Your task to perform on an android device: turn pop-ups on in chrome Image 0: 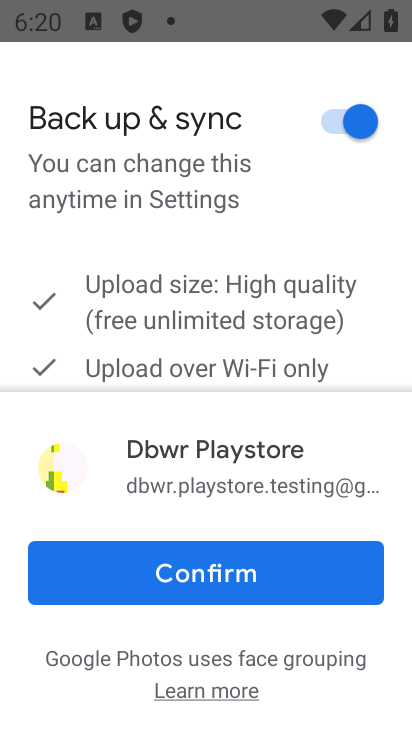
Step 0: press home button
Your task to perform on an android device: turn pop-ups on in chrome Image 1: 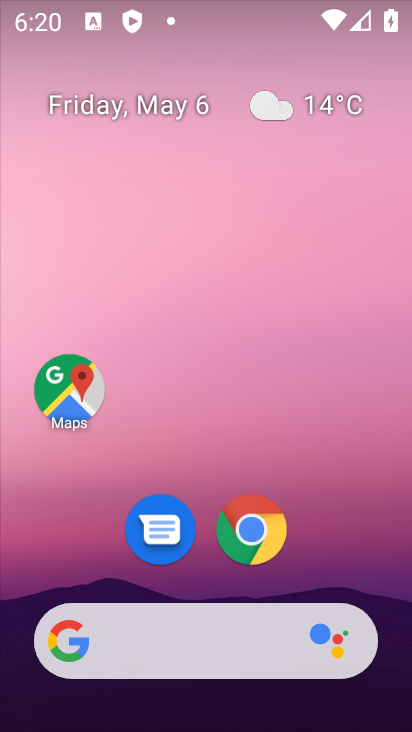
Step 1: click (251, 542)
Your task to perform on an android device: turn pop-ups on in chrome Image 2: 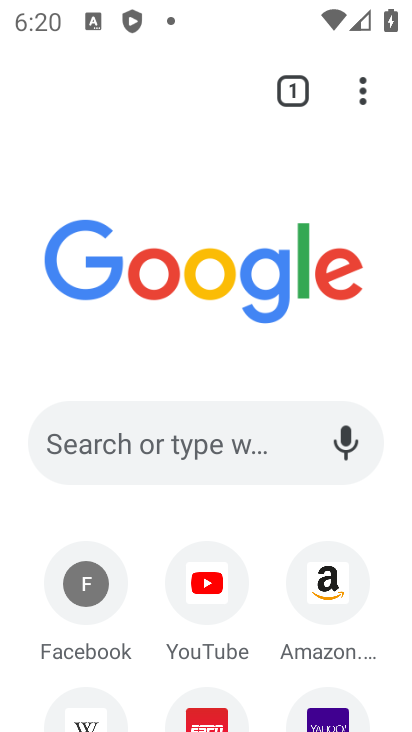
Step 2: click (364, 91)
Your task to perform on an android device: turn pop-ups on in chrome Image 3: 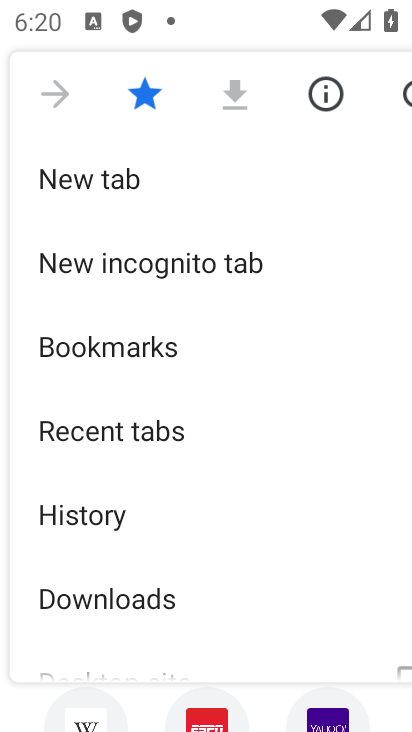
Step 3: drag from (208, 569) to (196, 84)
Your task to perform on an android device: turn pop-ups on in chrome Image 4: 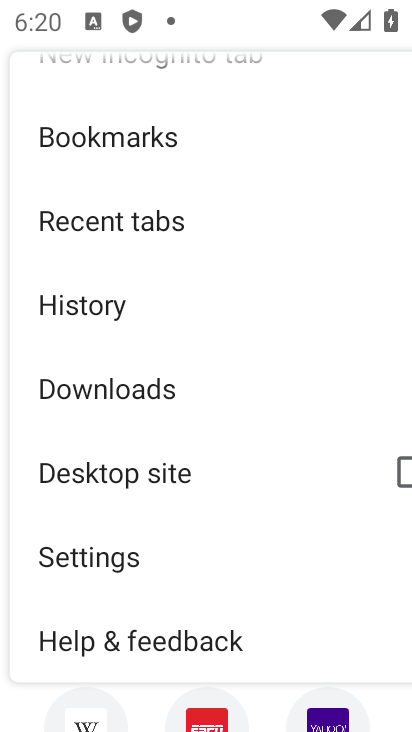
Step 4: click (117, 559)
Your task to perform on an android device: turn pop-ups on in chrome Image 5: 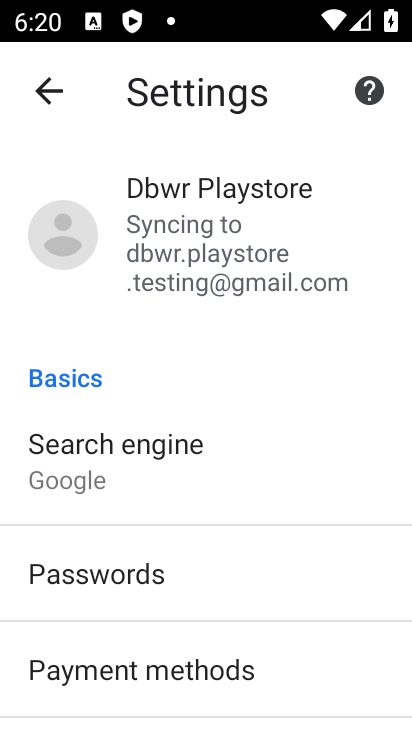
Step 5: drag from (222, 612) to (215, 128)
Your task to perform on an android device: turn pop-ups on in chrome Image 6: 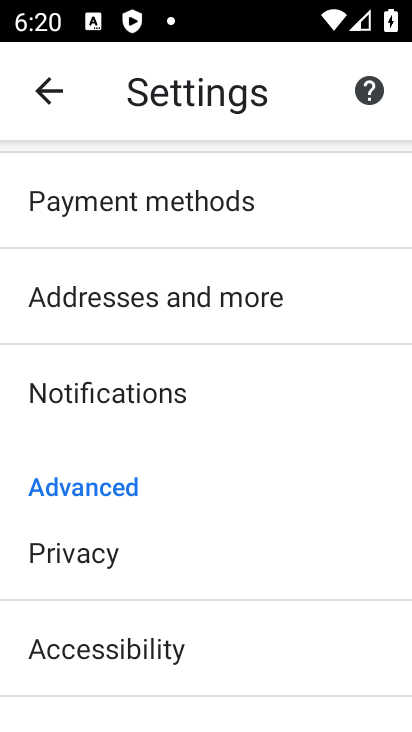
Step 6: drag from (195, 630) to (213, 271)
Your task to perform on an android device: turn pop-ups on in chrome Image 7: 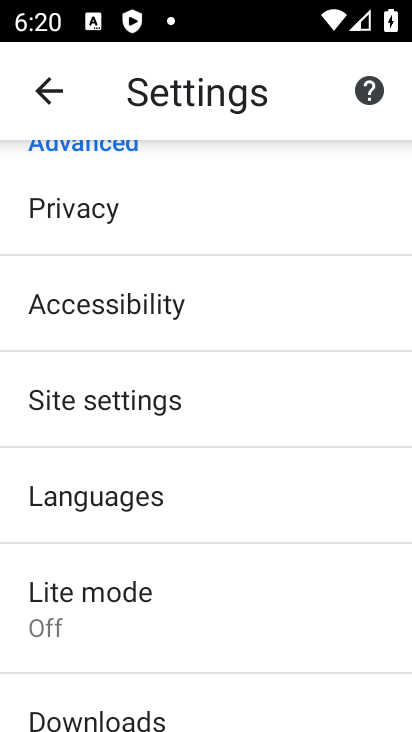
Step 7: drag from (228, 637) to (228, 283)
Your task to perform on an android device: turn pop-ups on in chrome Image 8: 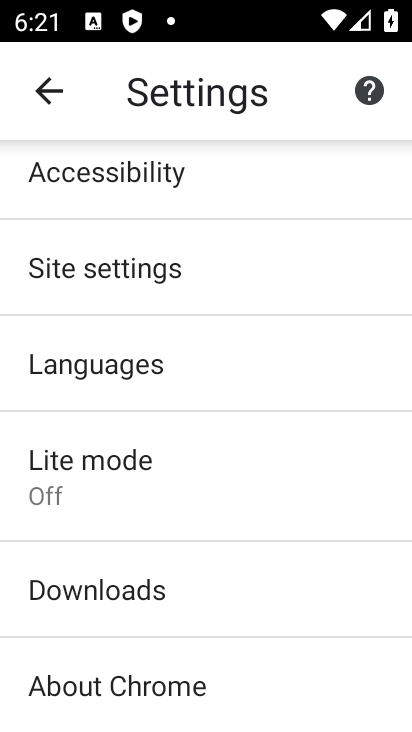
Step 8: click (147, 267)
Your task to perform on an android device: turn pop-ups on in chrome Image 9: 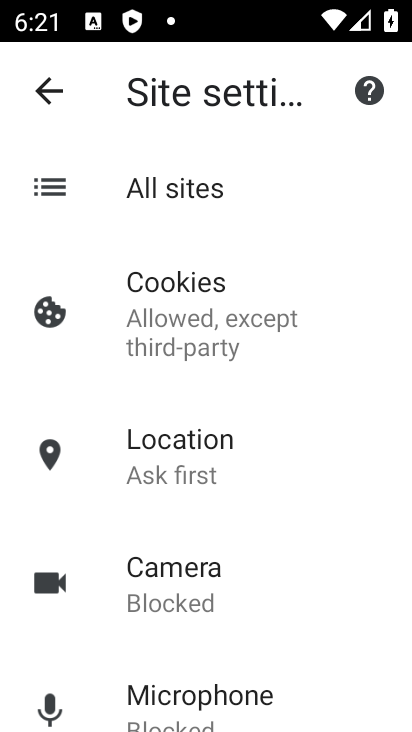
Step 9: drag from (243, 641) to (211, 231)
Your task to perform on an android device: turn pop-ups on in chrome Image 10: 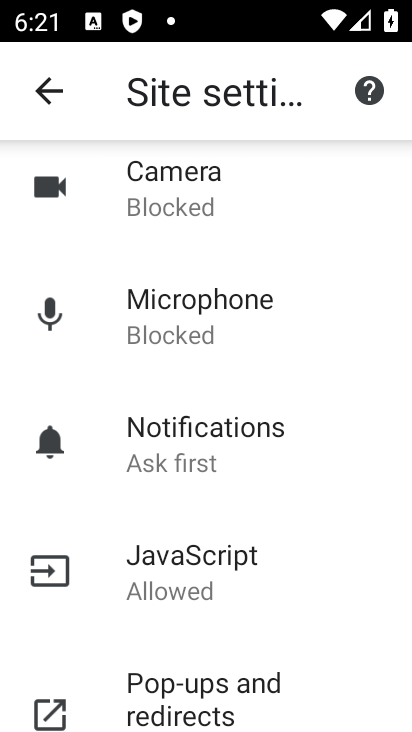
Step 10: click (194, 683)
Your task to perform on an android device: turn pop-ups on in chrome Image 11: 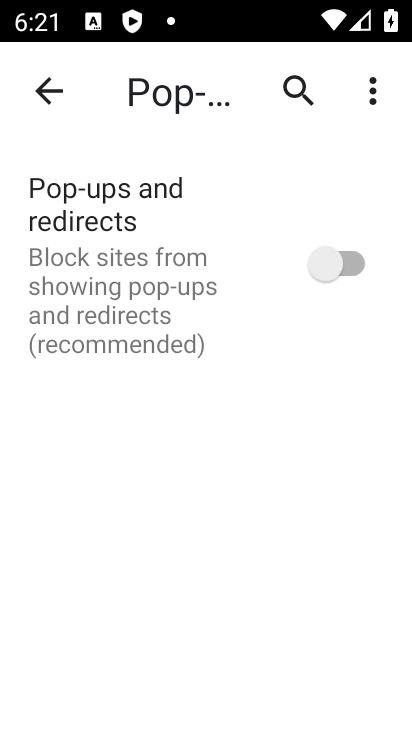
Step 11: click (342, 256)
Your task to perform on an android device: turn pop-ups on in chrome Image 12: 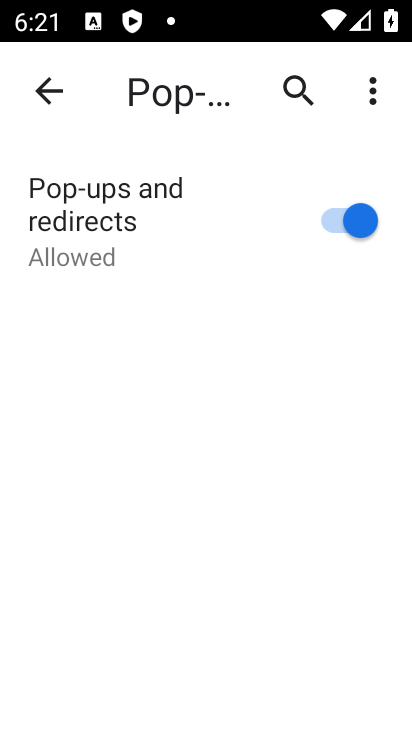
Step 12: task complete